Your task to perform on an android device: turn pop-ups on in chrome Image 0: 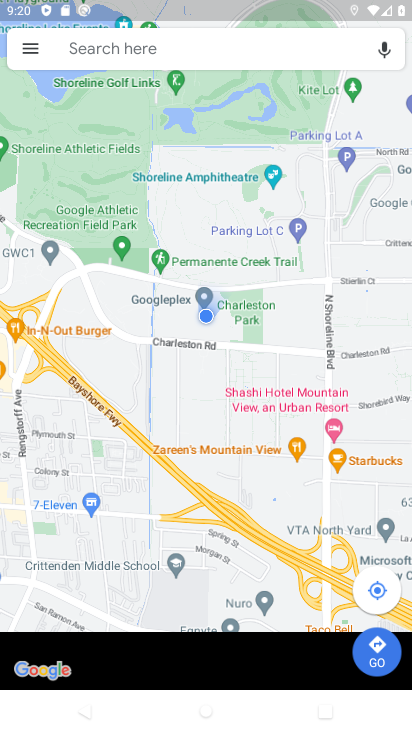
Step 0: press home button
Your task to perform on an android device: turn pop-ups on in chrome Image 1: 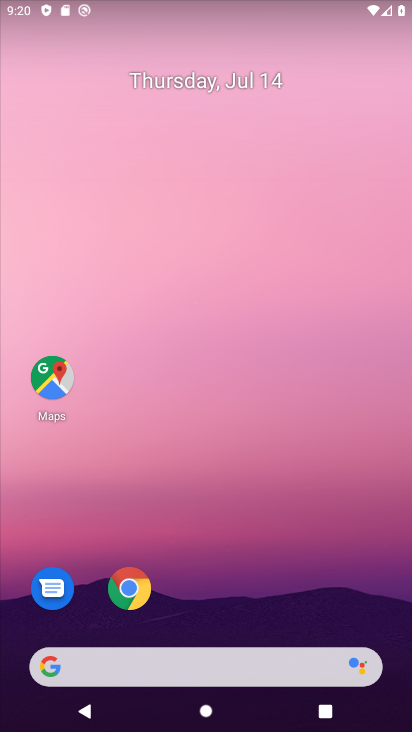
Step 1: click (128, 584)
Your task to perform on an android device: turn pop-ups on in chrome Image 2: 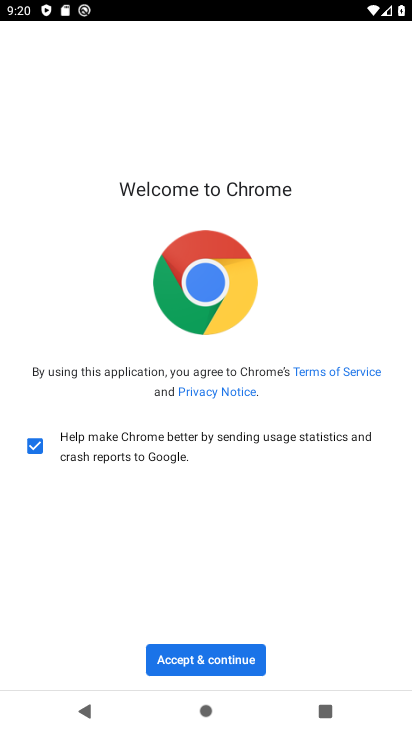
Step 2: click (211, 654)
Your task to perform on an android device: turn pop-ups on in chrome Image 3: 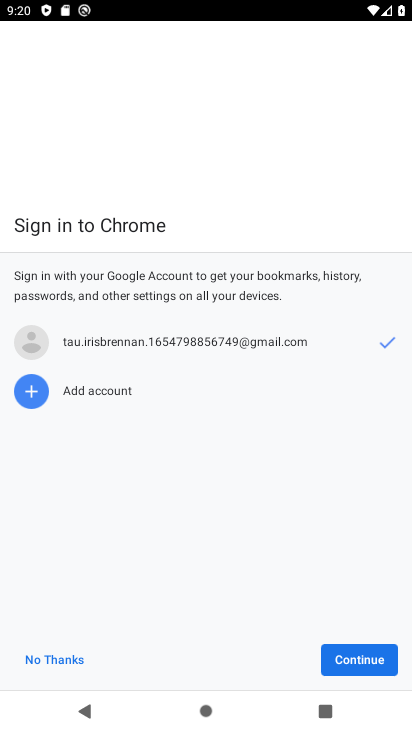
Step 3: click (331, 661)
Your task to perform on an android device: turn pop-ups on in chrome Image 4: 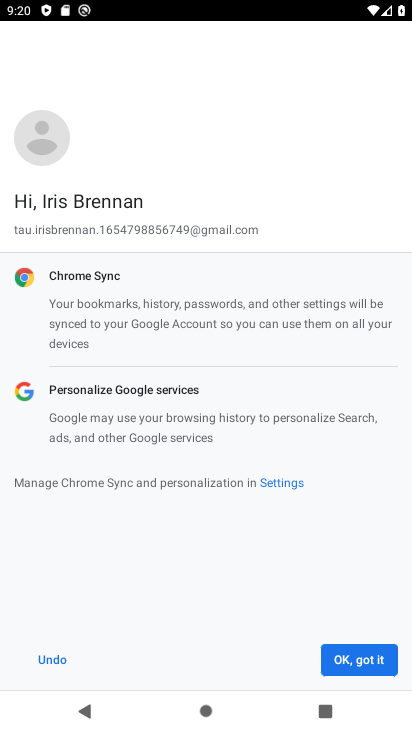
Step 4: click (331, 660)
Your task to perform on an android device: turn pop-ups on in chrome Image 5: 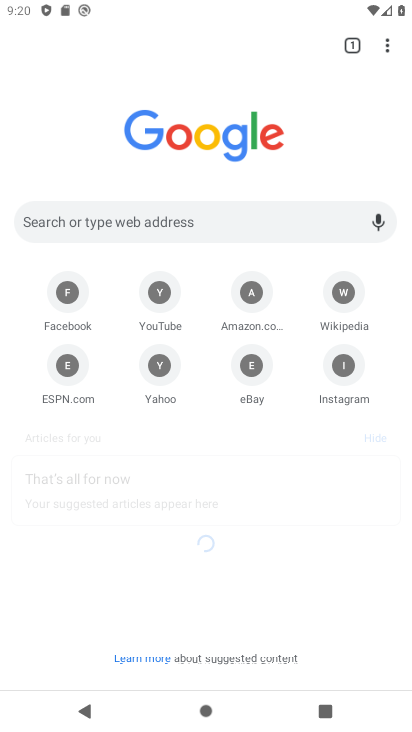
Step 5: click (389, 44)
Your task to perform on an android device: turn pop-ups on in chrome Image 6: 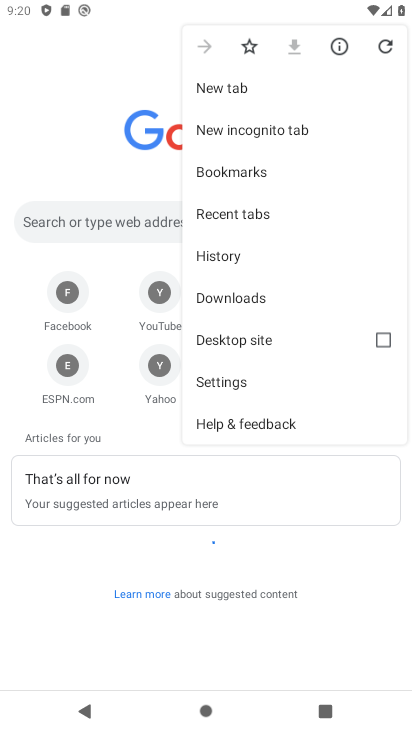
Step 6: click (232, 385)
Your task to perform on an android device: turn pop-ups on in chrome Image 7: 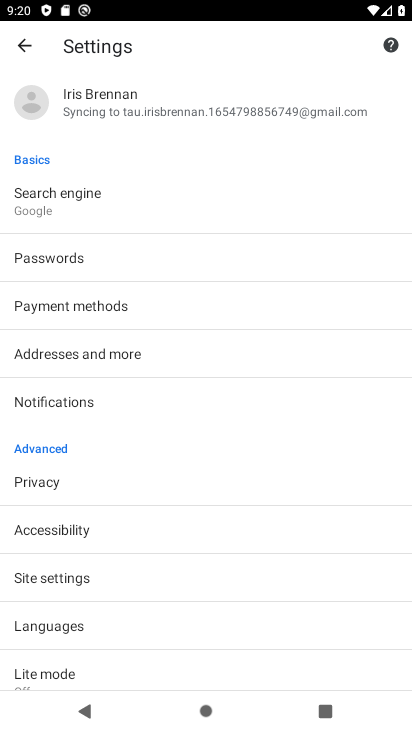
Step 7: drag from (48, 665) to (65, 315)
Your task to perform on an android device: turn pop-ups on in chrome Image 8: 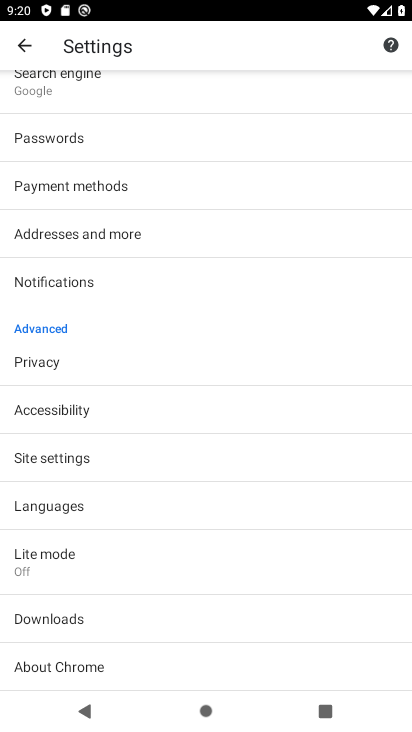
Step 8: click (59, 457)
Your task to perform on an android device: turn pop-ups on in chrome Image 9: 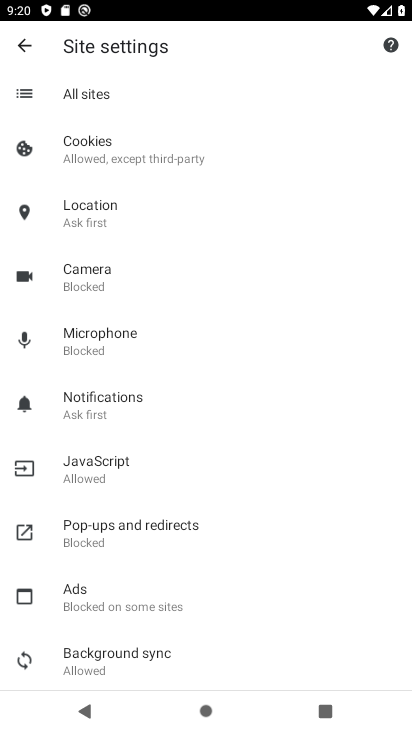
Step 9: click (118, 523)
Your task to perform on an android device: turn pop-ups on in chrome Image 10: 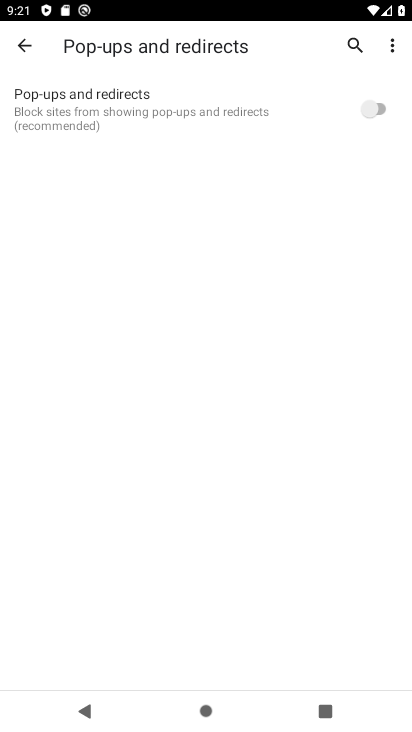
Step 10: click (379, 107)
Your task to perform on an android device: turn pop-ups on in chrome Image 11: 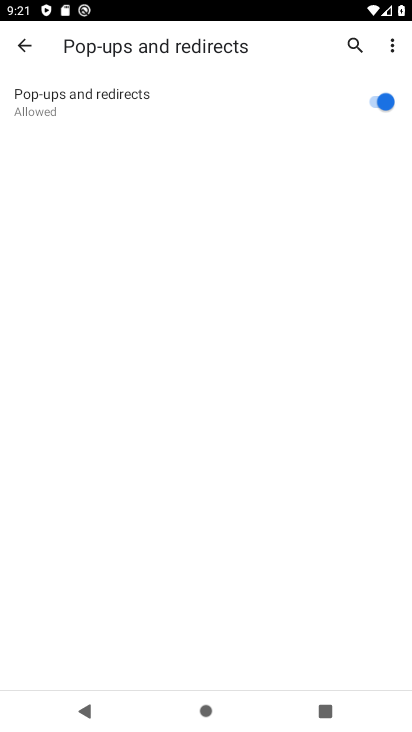
Step 11: task complete